Your task to perform on an android device: turn off notifications in google photos Image 0: 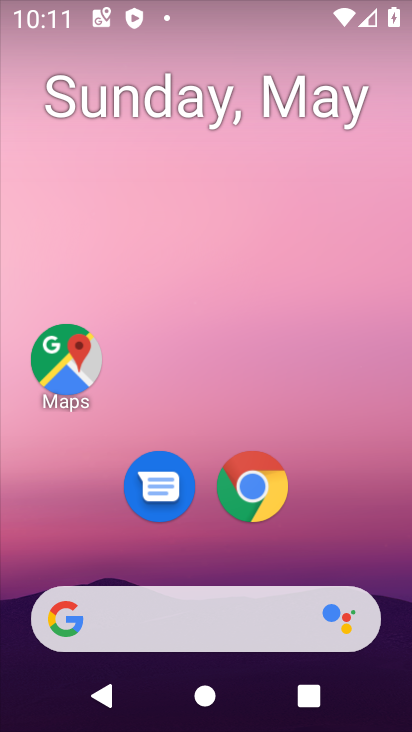
Step 0: drag from (370, 553) to (248, 17)
Your task to perform on an android device: turn off notifications in google photos Image 1: 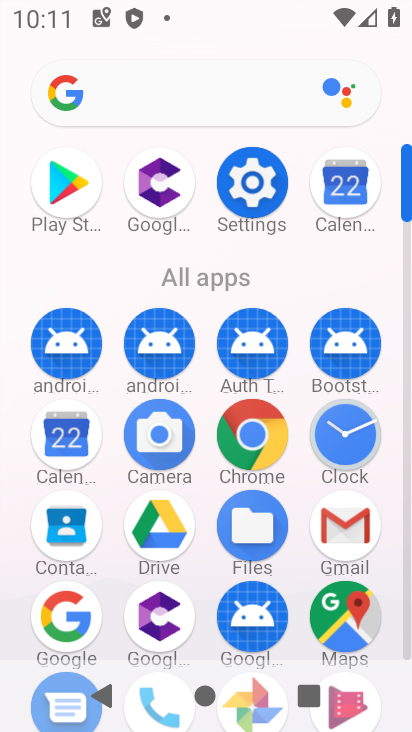
Step 1: drag from (203, 577) to (194, 342)
Your task to perform on an android device: turn off notifications in google photos Image 2: 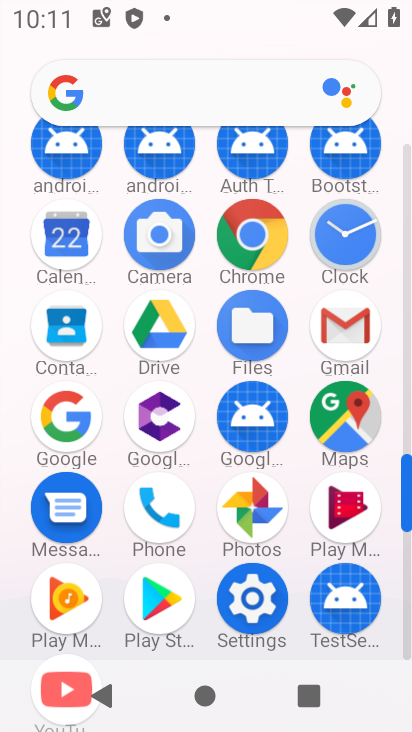
Step 2: click (252, 505)
Your task to perform on an android device: turn off notifications in google photos Image 3: 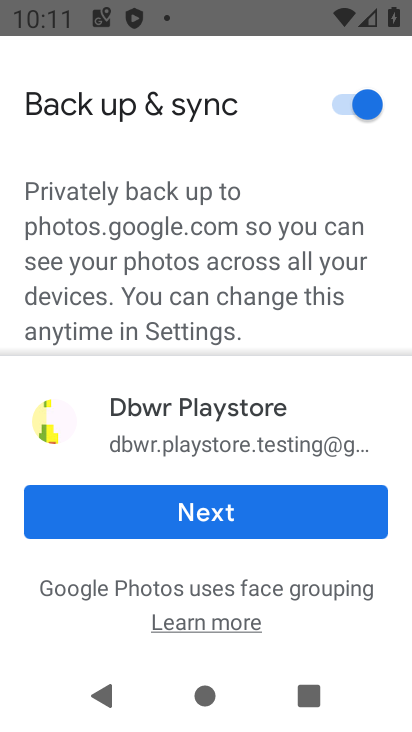
Step 3: click (252, 505)
Your task to perform on an android device: turn off notifications in google photos Image 4: 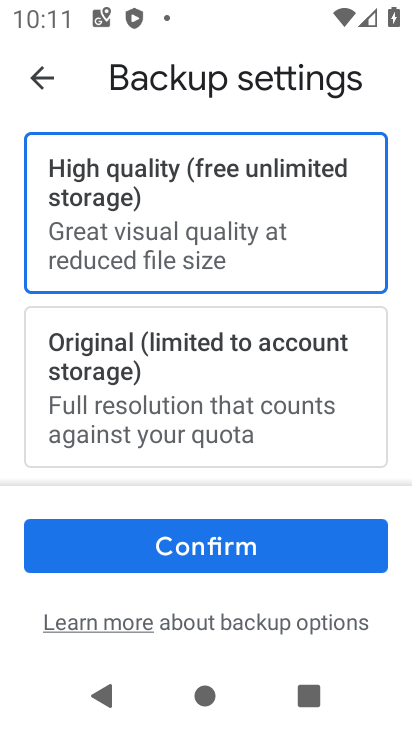
Step 4: click (257, 535)
Your task to perform on an android device: turn off notifications in google photos Image 5: 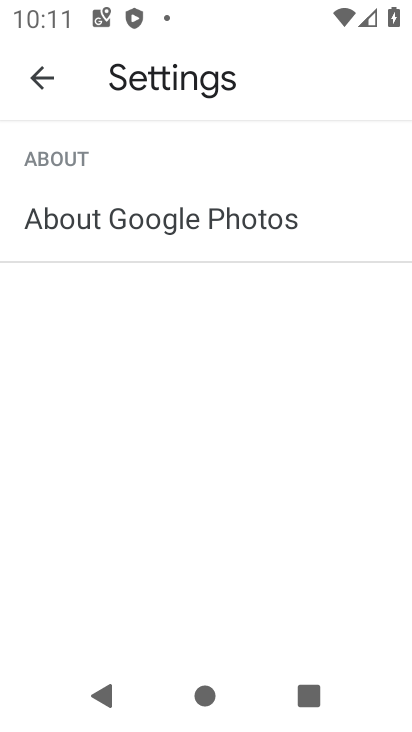
Step 5: click (101, 693)
Your task to perform on an android device: turn off notifications in google photos Image 6: 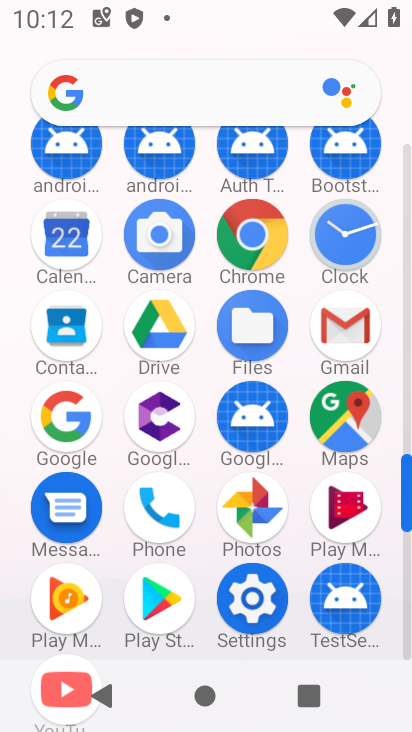
Step 6: click (254, 503)
Your task to perform on an android device: turn off notifications in google photos Image 7: 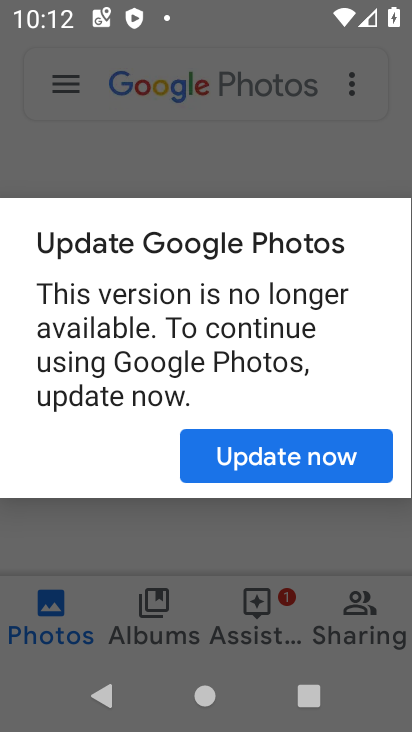
Step 7: click (291, 460)
Your task to perform on an android device: turn off notifications in google photos Image 8: 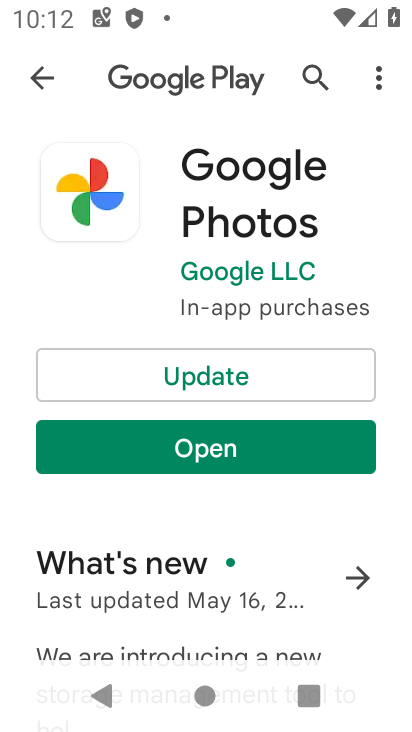
Step 8: click (227, 373)
Your task to perform on an android device: turn off notifications in google photos Image 9: 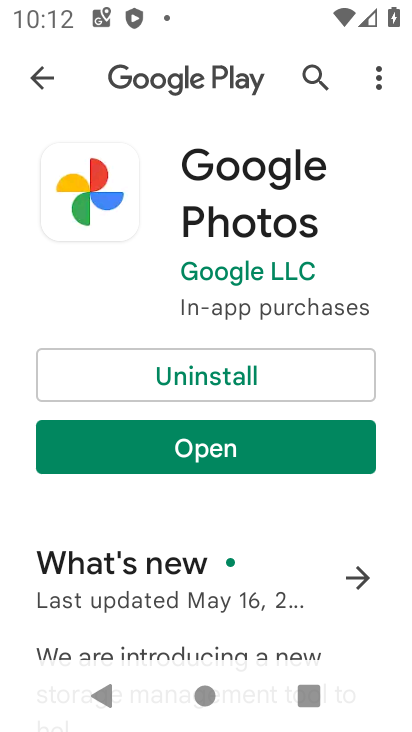
Step 9: click (233, 457)
Your task to perform on an android device: turn off notifications in google photos Image 10: 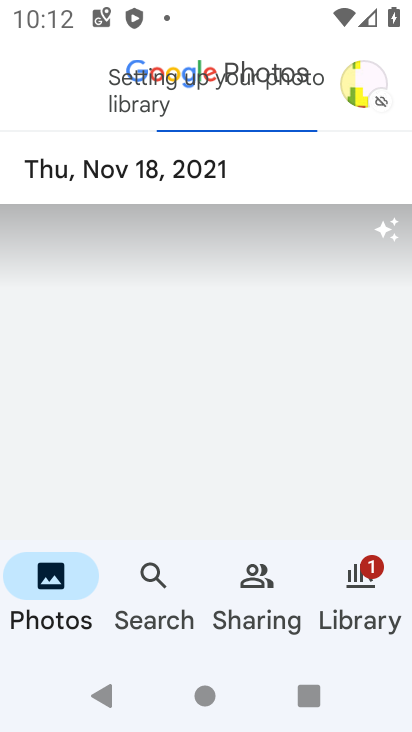
Step 10: click (359, 80)
Your task to perform on an android device: turn off notifications in google photos Image 11: 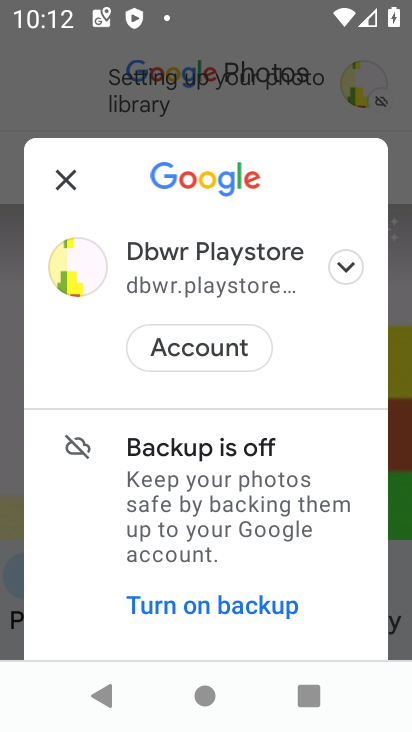
Step 11: drag from (251, 570) to (310, 327)
Your task to perform on an android device: turn off notifications in google photos Image 12: 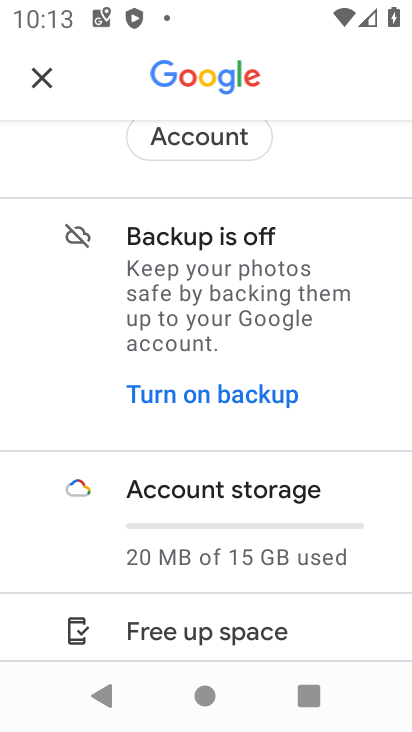
Step 12: drag from (208, 604) to (277, 430)
Your task to perform on an android device: turn off notifications in google photos Image 13: 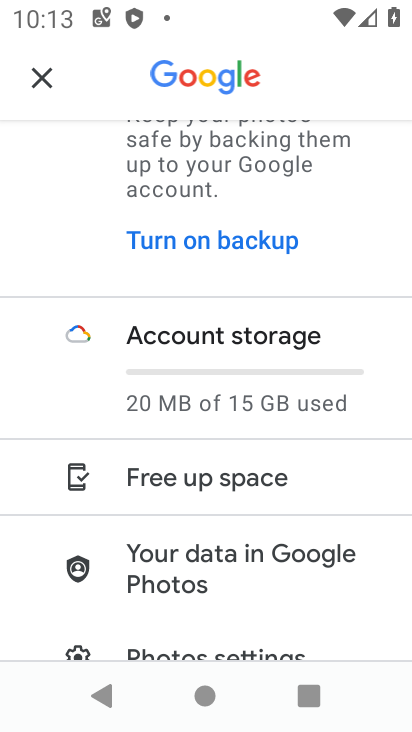
Step 13: drag from (207, 612) to (280, 511)
Your task to perform on an android device: turn off notifications in google photos Image 14: 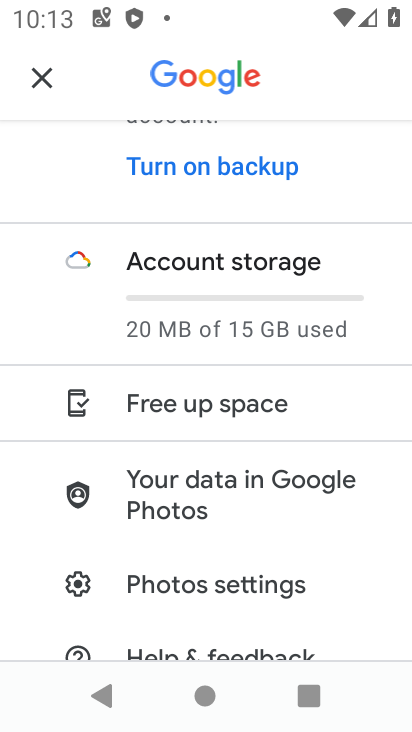
Step 14: click (251, 594)
Your task to perform on an android device: turn off notifications in google photos Image 15: 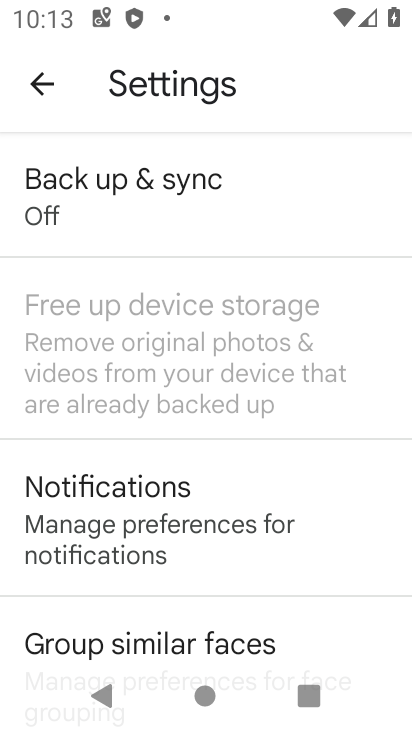
Step 15: click (177, 526)
Your task to perform on an android device: turn off notifications in google photos Image 16: 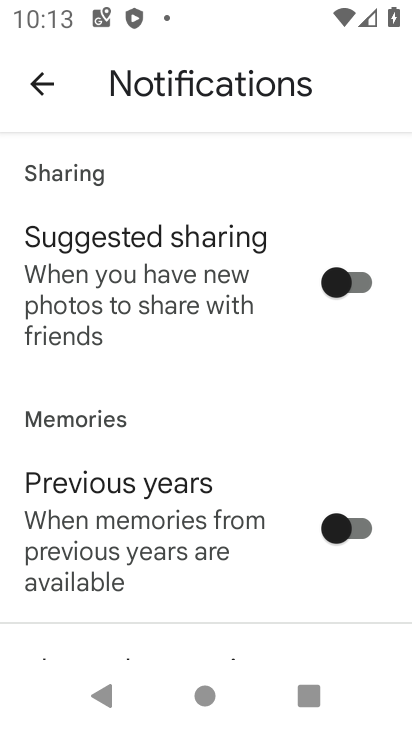
Step 16: drag from (202, 590) to (228, 416)
Your task to perform on an android device: turn off notifications in google photos Image 17: 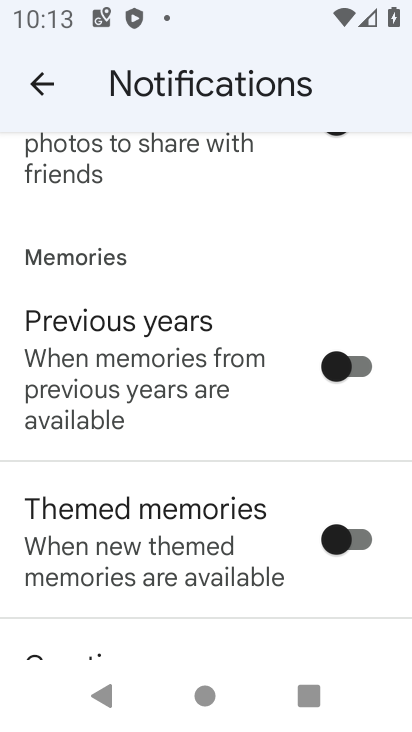
Step 17: drag from (161, 593) to (220, 459)
Your task to perform on an android device: turn off notifications in google photos Image 18: 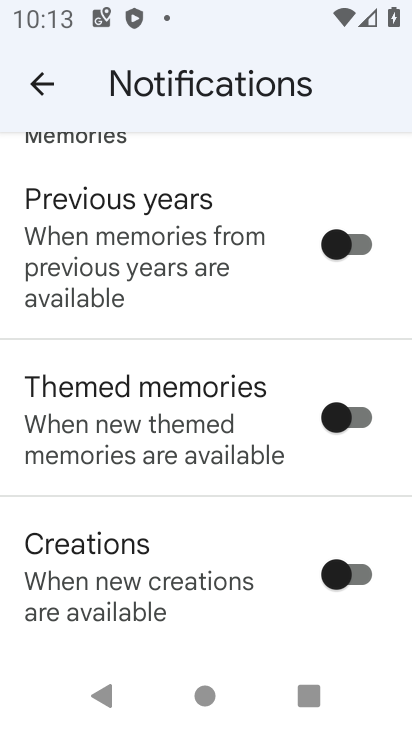
Step 18: drag from (175, 600) to (248, 447)
Your task to perform on an android device: turn off notifications in google photos Image 19: 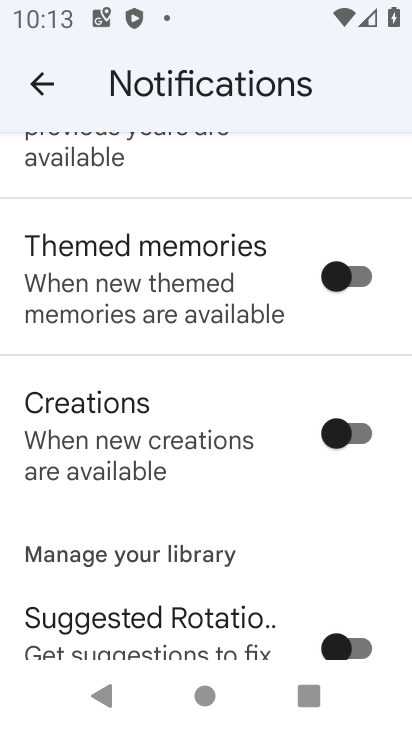
Step 19: drag from (155, 598) to (235, 458)
Your task to perform on an android device: turn off notifications in google photos Image 20: 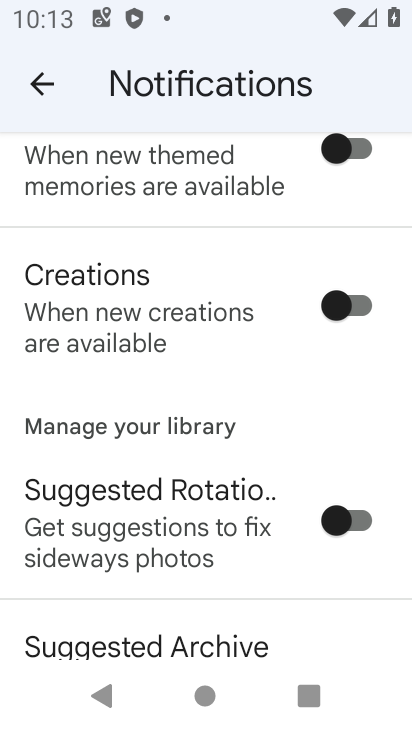
Step 20: drag from (177, 599) to (254, 456)
Your task to perform on an android device: turn off notifications in google photos Image 21: 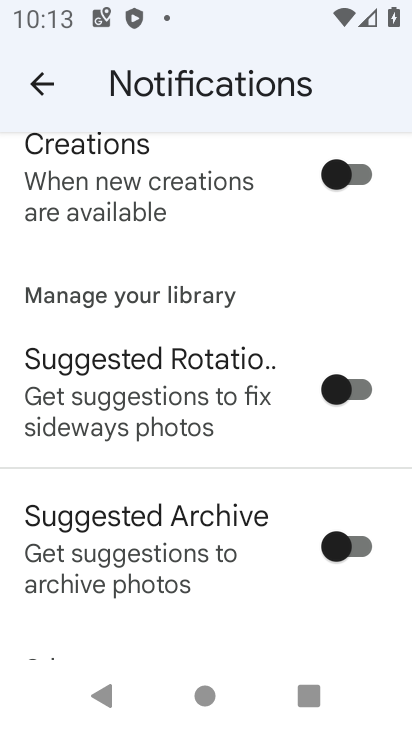
Step 21: drag from (157, 614) to (221, 468)
Your task to perform on an android device: turn off notifications in google photos Image 22: 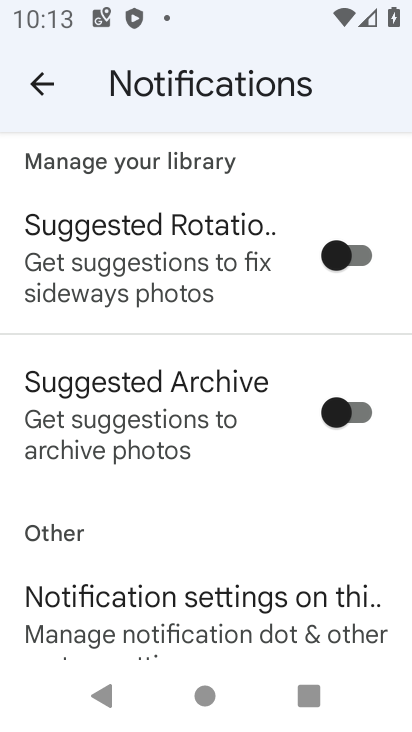
Step 22: drag from (177, 569) to (233, 389)
Your task to perform on an android device: turn off notifications in google photos Image 23: 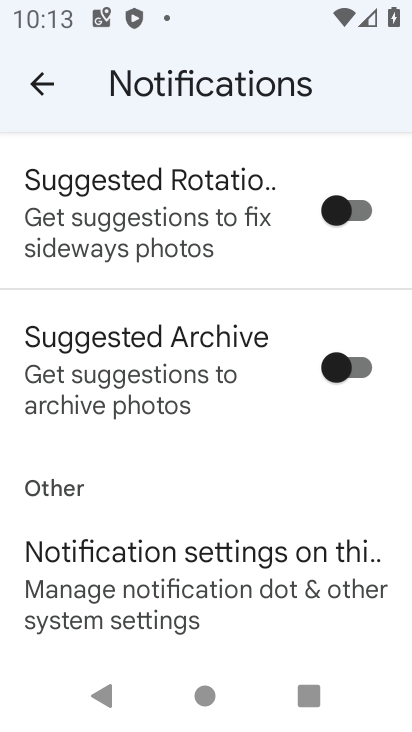
Step 23: click (182, 551)
Your task to perform on an android device: turn off notifications in google photos Image 24: 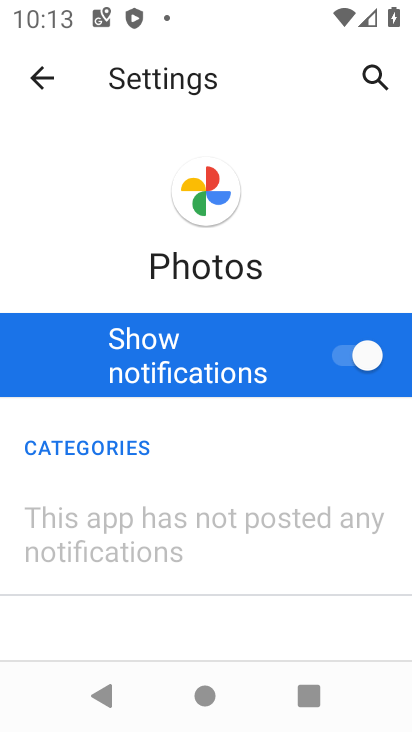
Step 24: click (335, 365)
Your task to perform on an android device: turn off notifications in google photos Image 25: 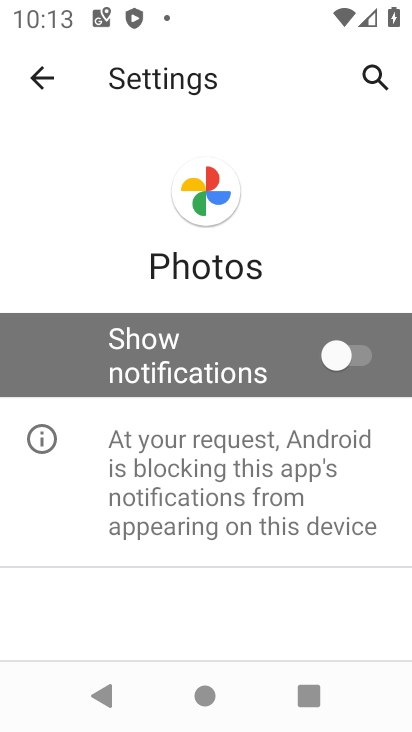
Step 25: task complete